Your task to perform on an android device: Open Yahoo.com Image 0: 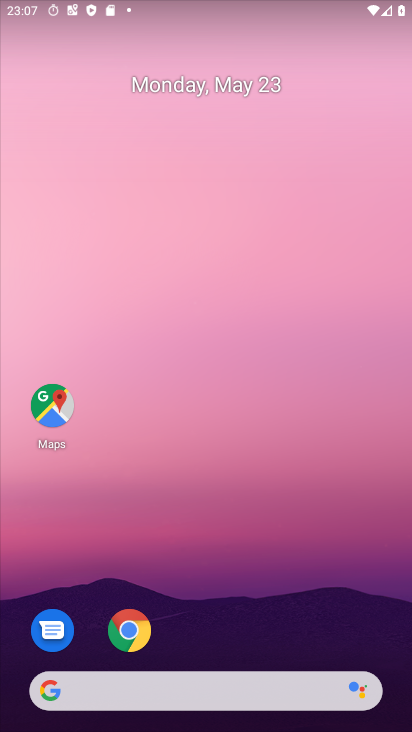
Step 0: click (138, 632)
Your task to perform on an android device: Open Yahoo.com Image 1: 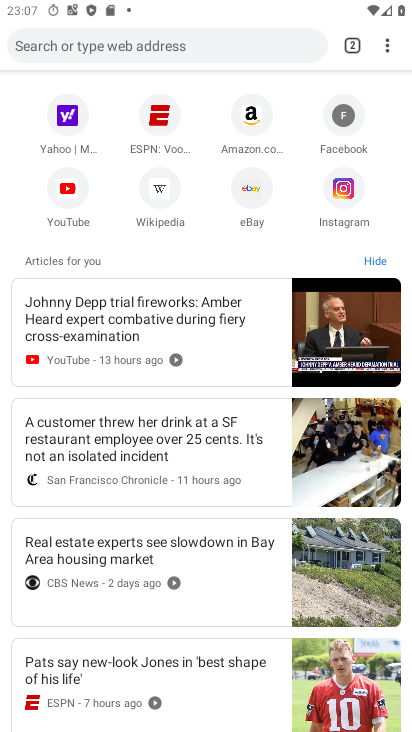
Step 1: click (75, 133)
Your task to perform on an android device: Open Yahoo.com Image 2: 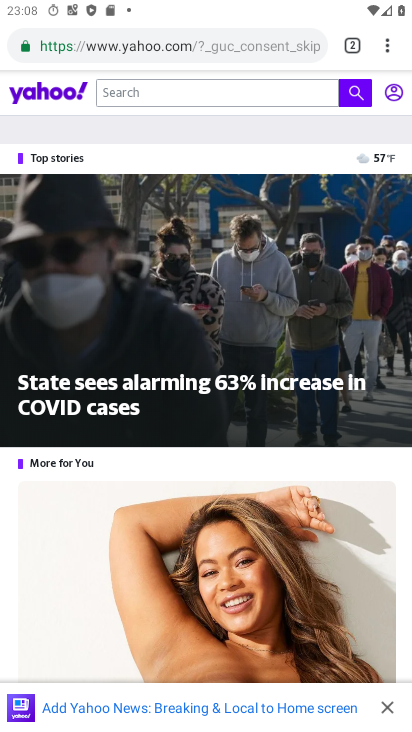
Step 2: task complete